Your task to perform on an android device: open app "Google Docs" Image 0: 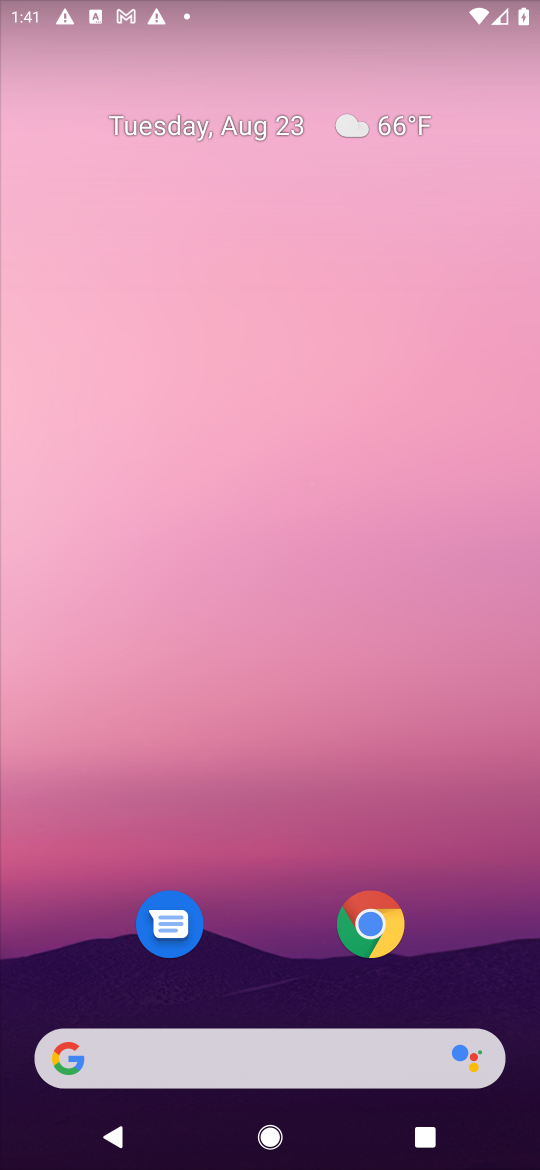
Step 0: press home button
Your task to perform on an android device: open app "Google Docs" Image 1: 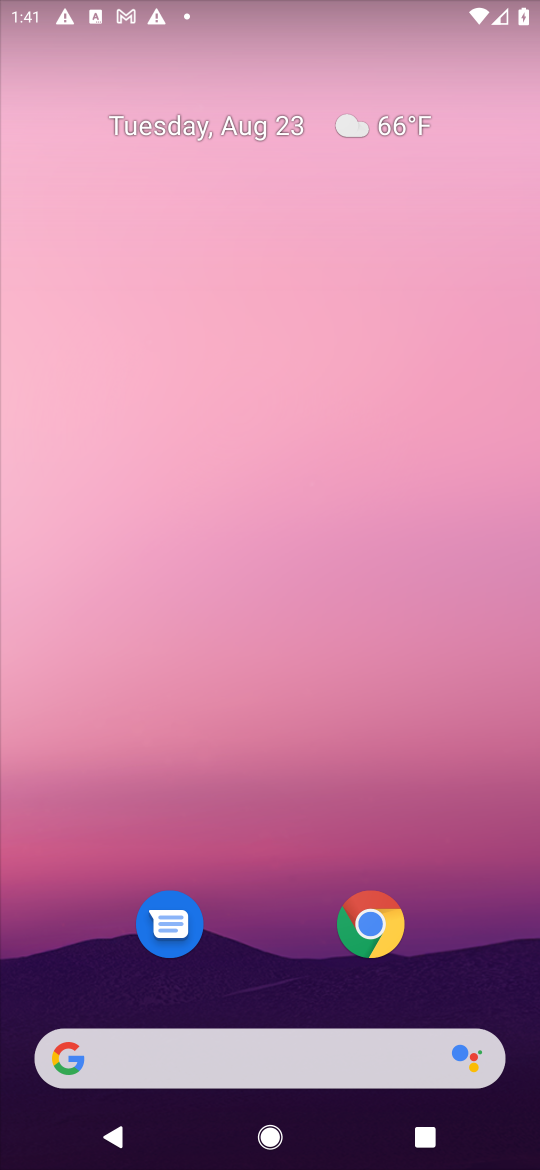
Step 1: drag from (465, 953) to (506, 124)
Your task to perform on an android device: open app "Google Docs" Image 2: 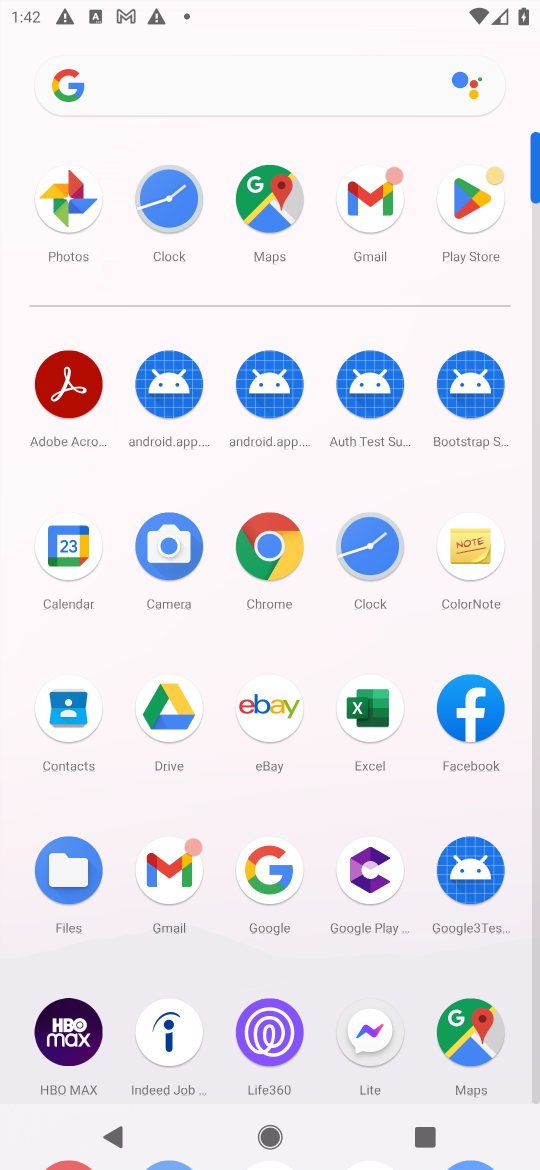
Step 2: click (461, 208)
Your task to perform on an android device: open app "Google Docs" Image 3: 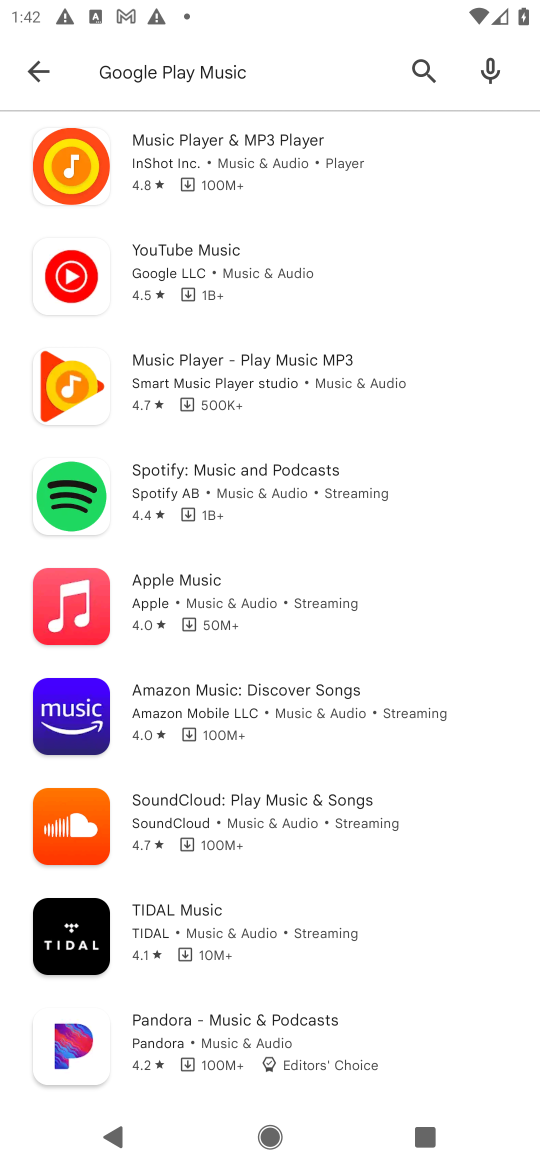
Step 3: press back button
Your task to perform on an android device: open app "Google Docs" Image 4: 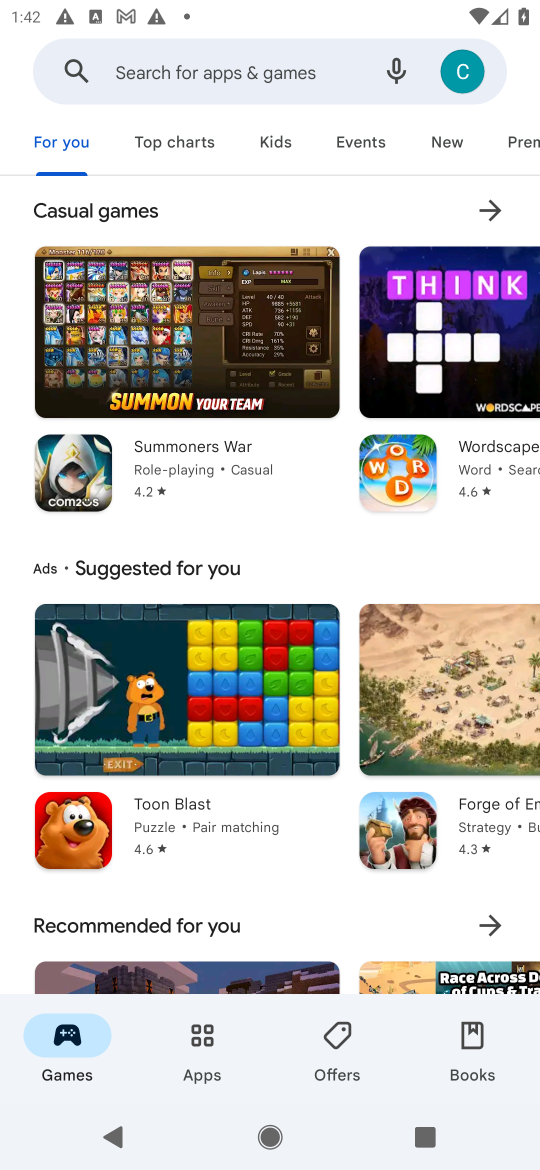
Step 4: click (276, 68)
Your task to perform on an android device: open app "Google Docs" Image 5: 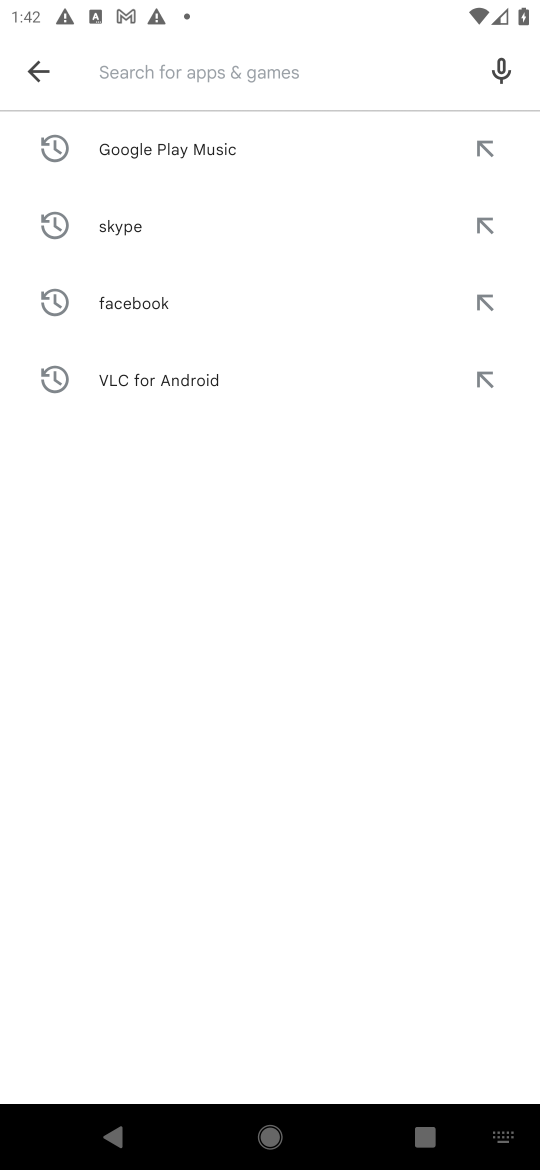
Step 5: type "Google Docs"
Your task to perform on an android device: open app "Google Docs" Image 6: 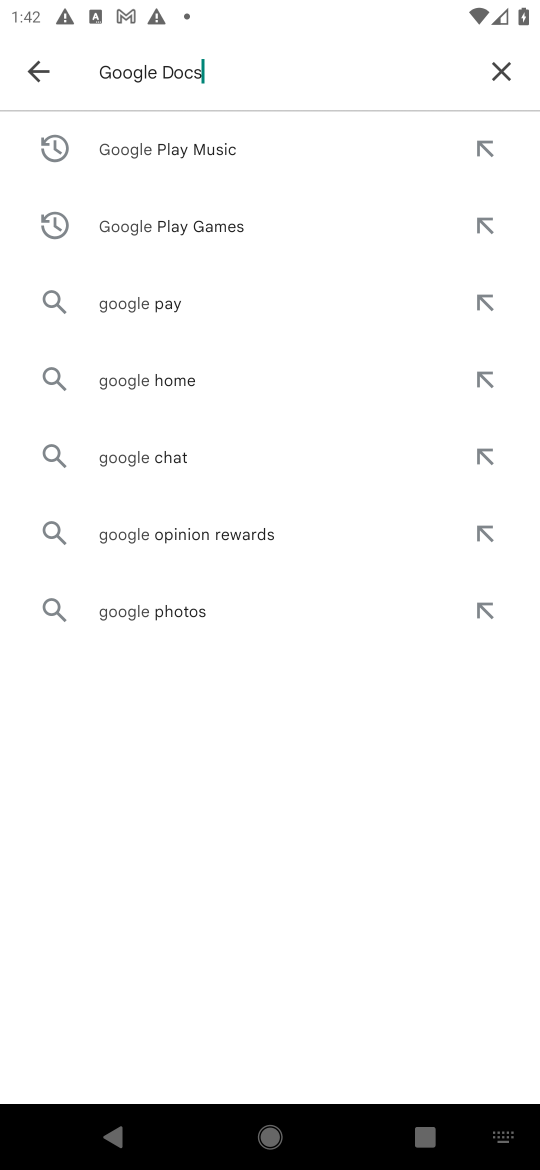
Step 6: press enter
Your task to perform on an android device: open app "Google Docs" Image 7: 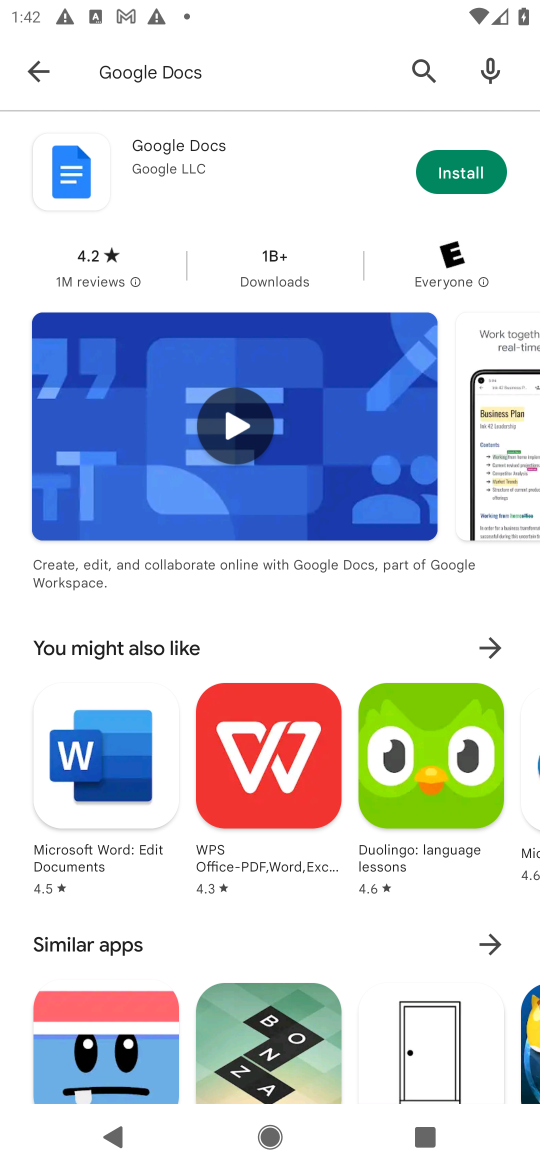
Step 7: task complete